Your task to perform on an android device: allow cookies in the chrome app Image 0: 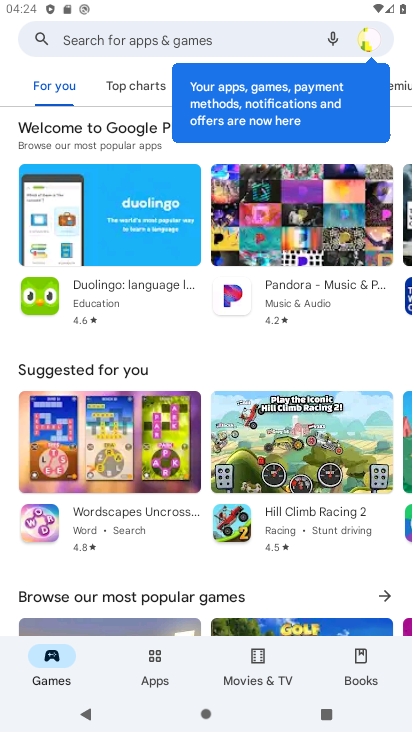
Step 0: press back button
Your task to perform on an android device: allow cookies in the chrome app Image 1: 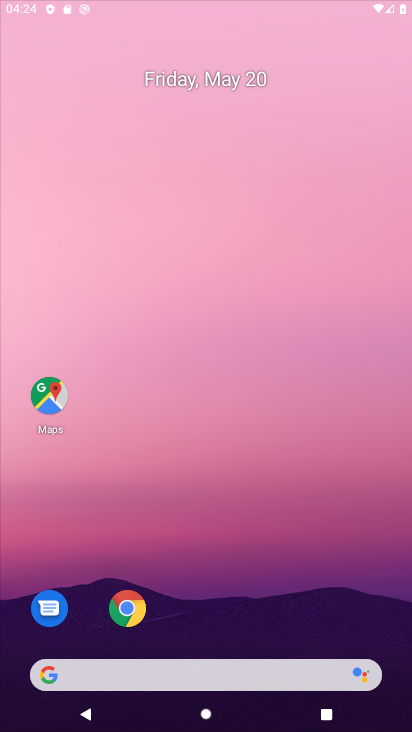
Step 1: press home button
Your task to perform on an android device: allow cookies in the chrome app Image 2: 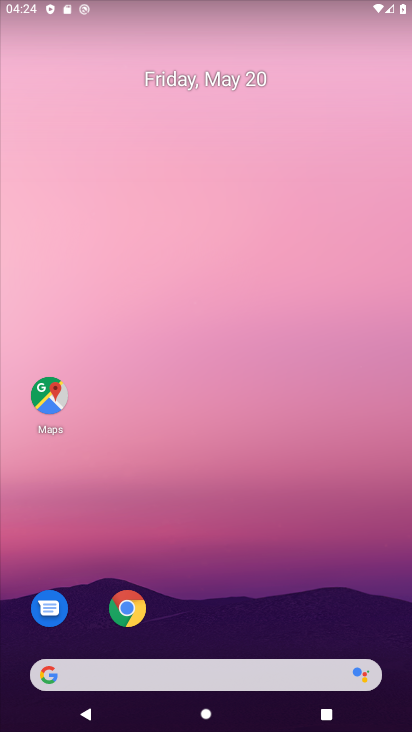
Step 2: drag from (192, 656) to (210, 25)
Your task to perform on an android device: allow cookies in the chrome app Image 3: 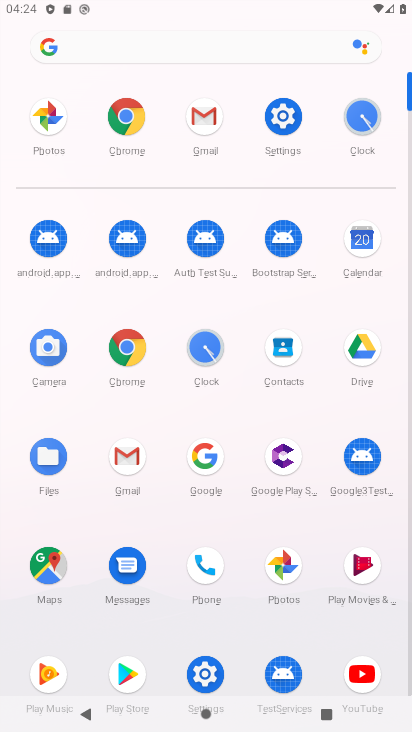
Step 3: click (135, 351)
Your task to perform on an android device: allow cookies in the chrome app Image 4: 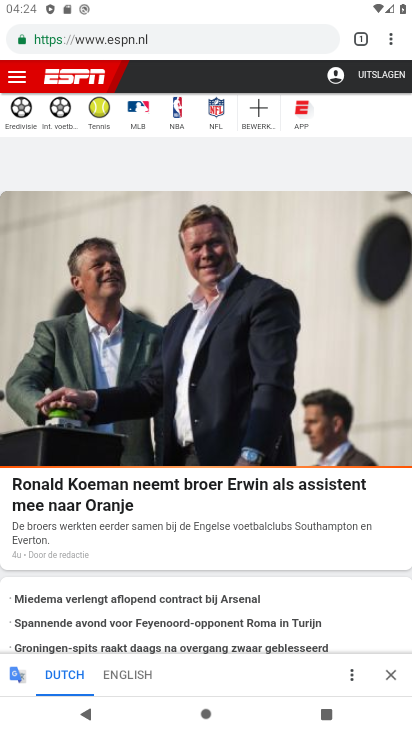
Step 4: drag from (387, 34) to (240, 217)
Your task to perform on an android device: allow cookies in the chrome app Image 5: 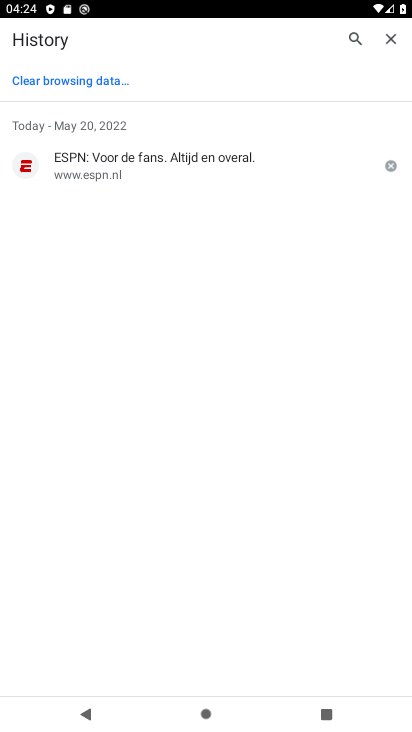
Step 5: click (24, 91)
Your task to perform on an android device: allow cookies in the chrome app Image 6: 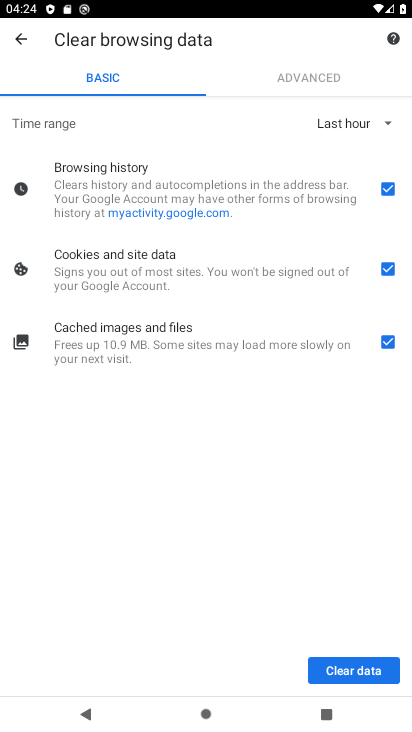
Step 6: click (361, 661)
Your task to perform on an android device: allow cookies in the chrome app Image 7: 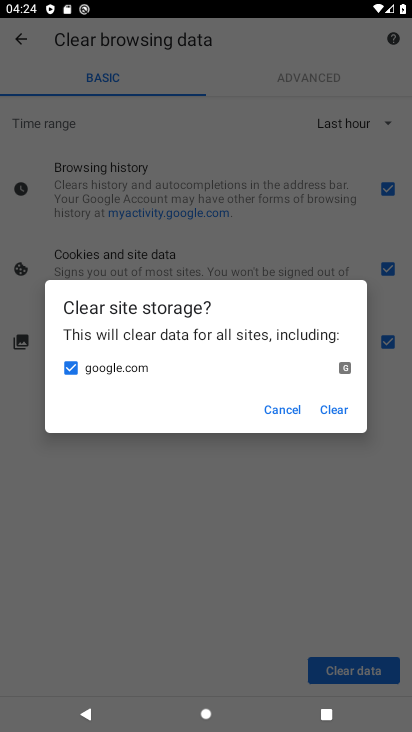
Step 7: click (329, 407)
Your task to perform on an android device: allow cookies in the chrome app Image 8: 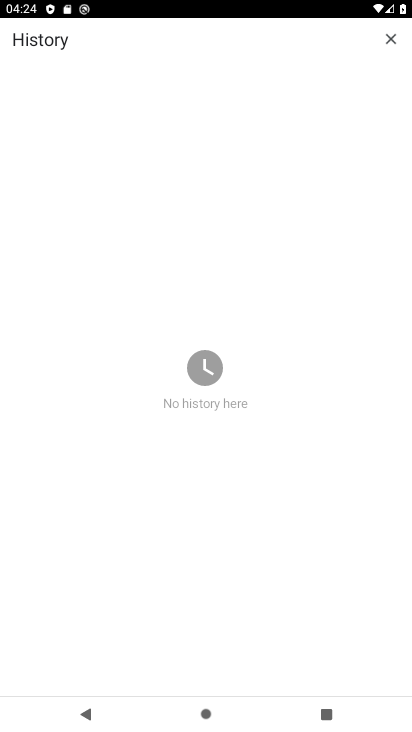
Step 8: task complete